Your task to perform on an android device: Show me recent news Image 0: 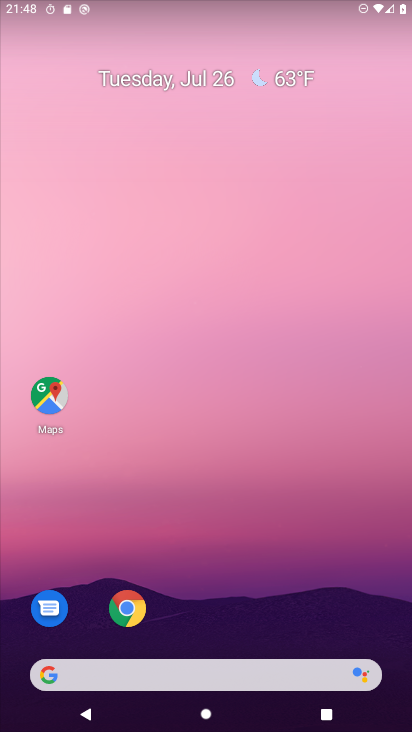
Step 0: click (109, 667)
Your task to perform on an android device: Show me recent news Image 1: 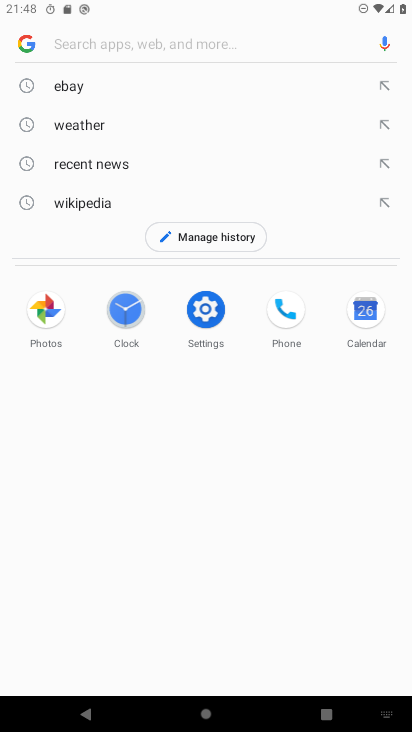
Step 1: click (82, 163)
Your task to perform on an android device: Show me recent news Image 2: 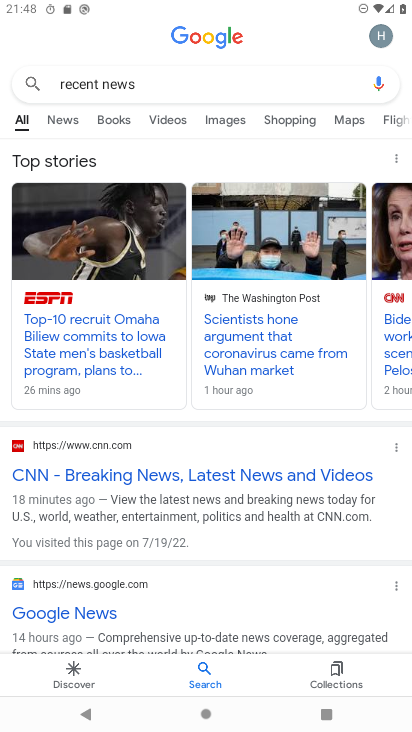
Step 2: task complete